Your task to perform on an android device: open app "Venmo" (install if not already installed) and go to login screen Image 0: 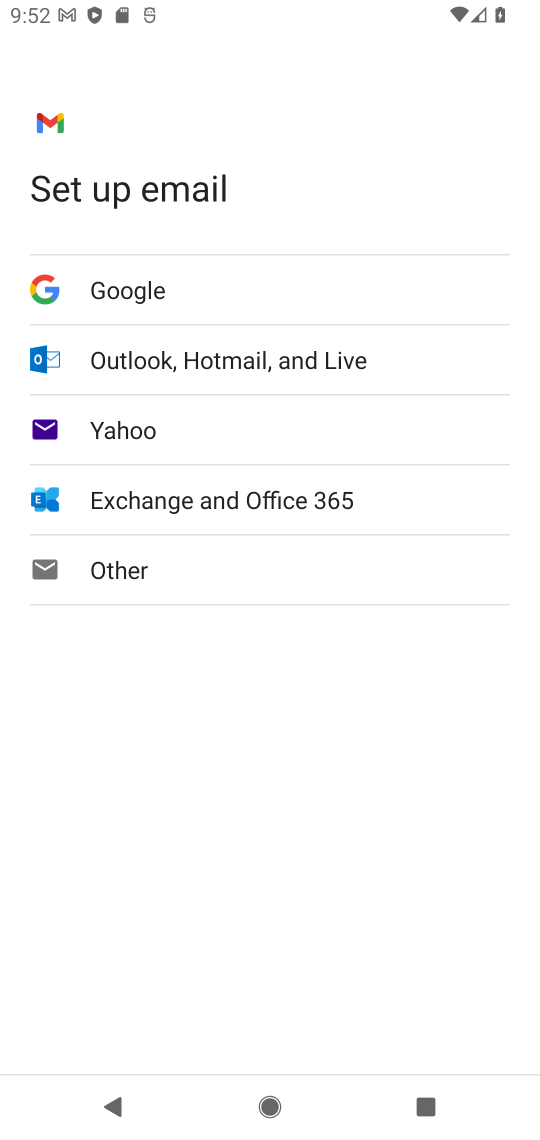
Step 0: press home button
Your task to perform on an android device: open app "Venmo" (install if not already installed) and go to login screen Image 1: 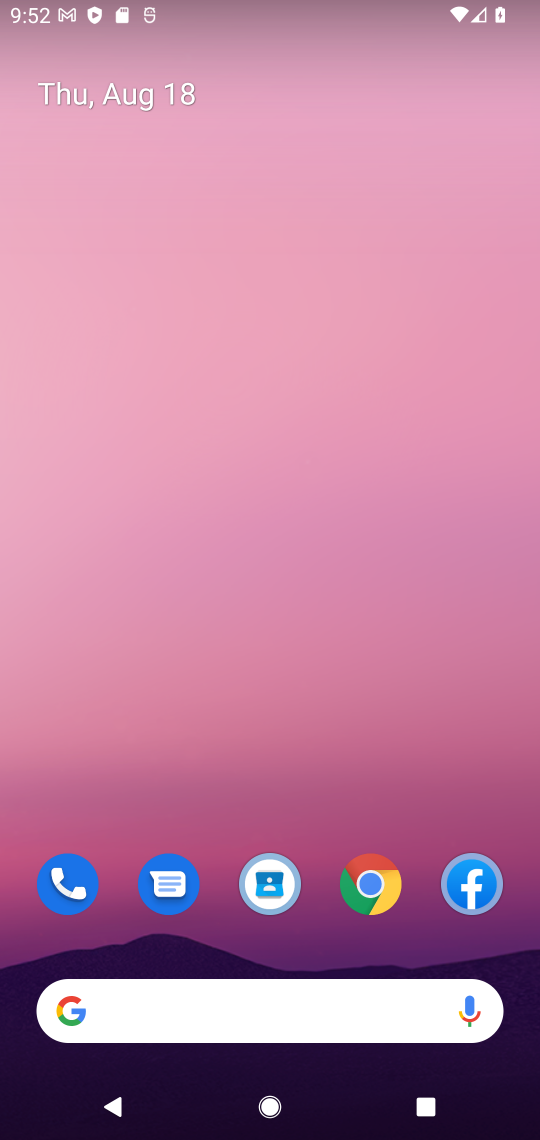
Step 1: drag from (324, 965) to (242, 270)
Your task to perform on an android device: open app "Venmo" (install if not already installed) and go to login screen Image 2: 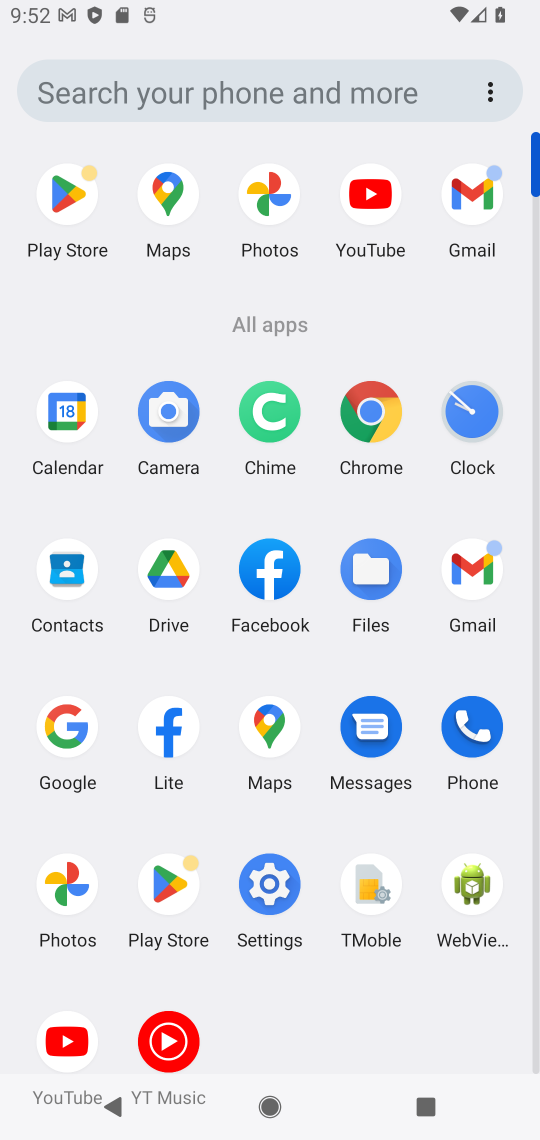
Step 2: click (198, 882)
Your task to perform on an android device: open app "Venmo" (install if not already installed) and go to login screen Image 3: 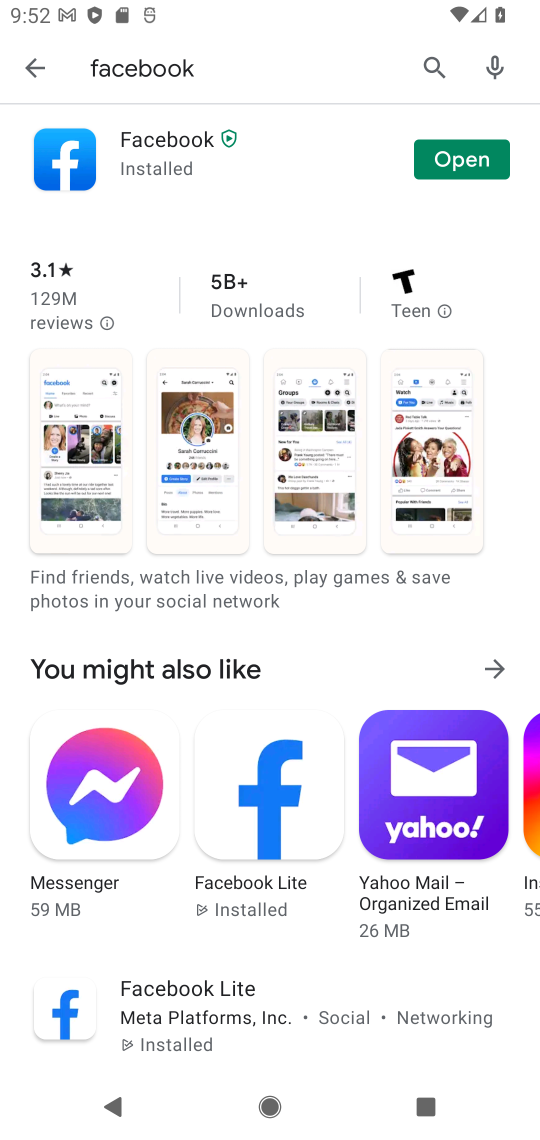
Step 3: click (415, 87)
Your task to perform on an android device: open app "Venmo" (install if not already installed) and go to login screen Image 4: 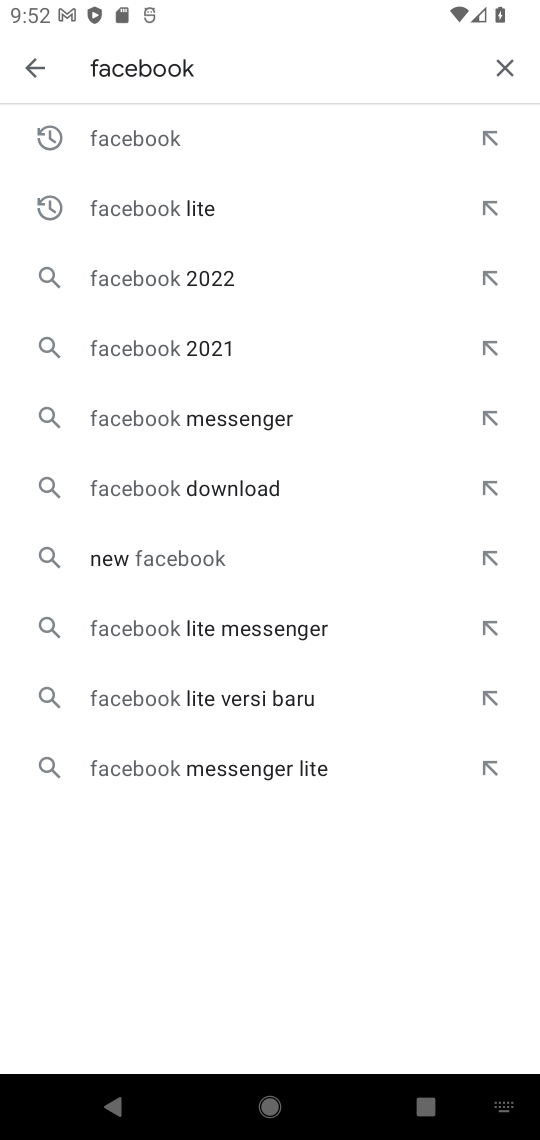
Step 4: click (488, 78)
Your task to perform on an android device: open app "Venmo" (install if not already installed) and go to login screen Image 5: 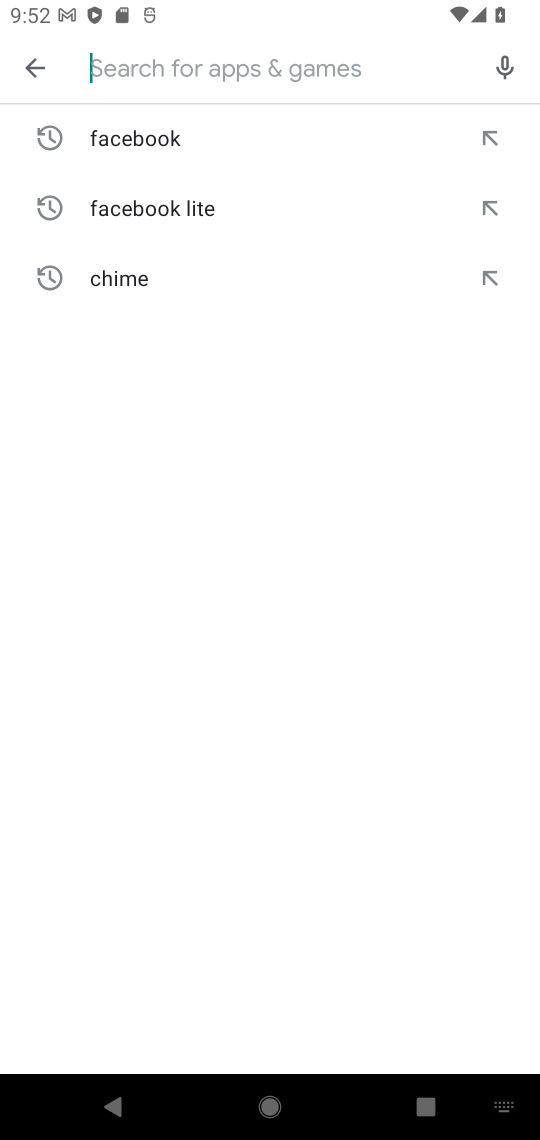
Step 5: type "venmo"
Your task to perform on an android device: open app "Venmo" (install if not already installed) and go to login screen Image 6: 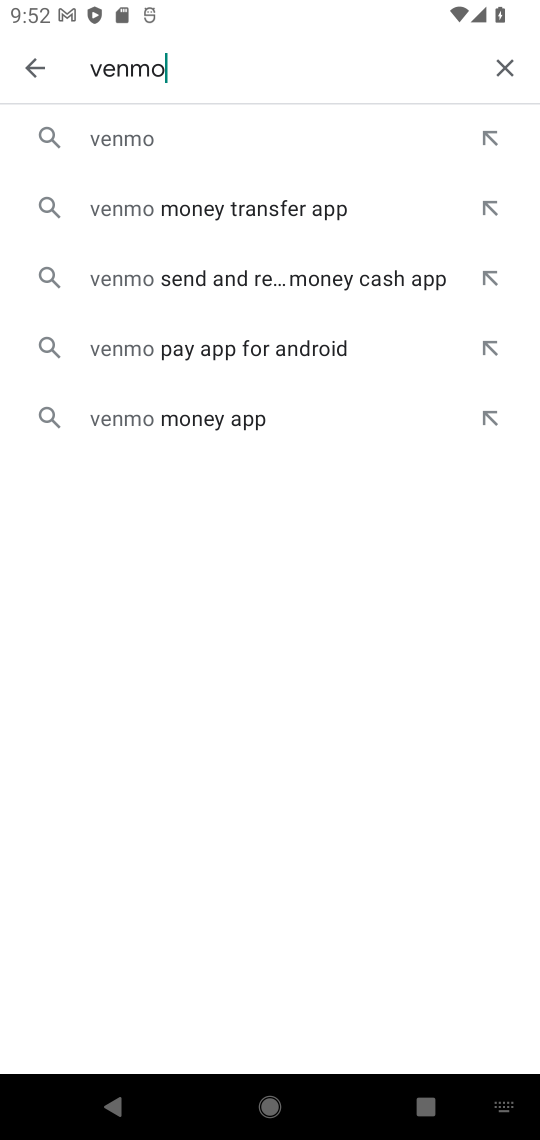
Step 6: click (167, 153)
Your task to perform on an android device: open app "Venmo" (install if not already installed) and go to login screen Image 7: 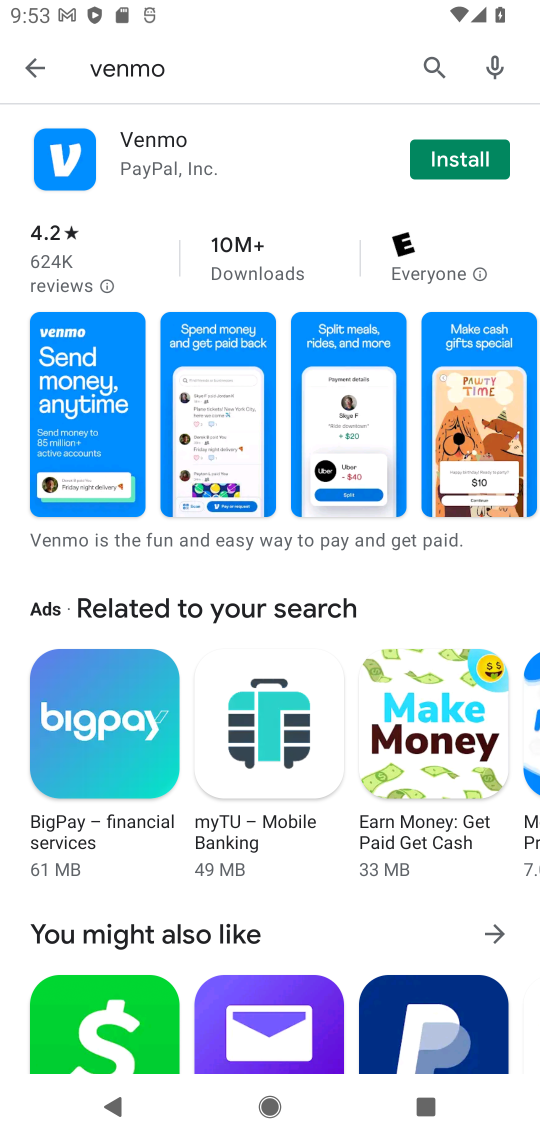
Step 7: click (477, 175)
Your task to perform on an android device: open app "Venmo" (install if not already installed) and go to login screen Image 8: 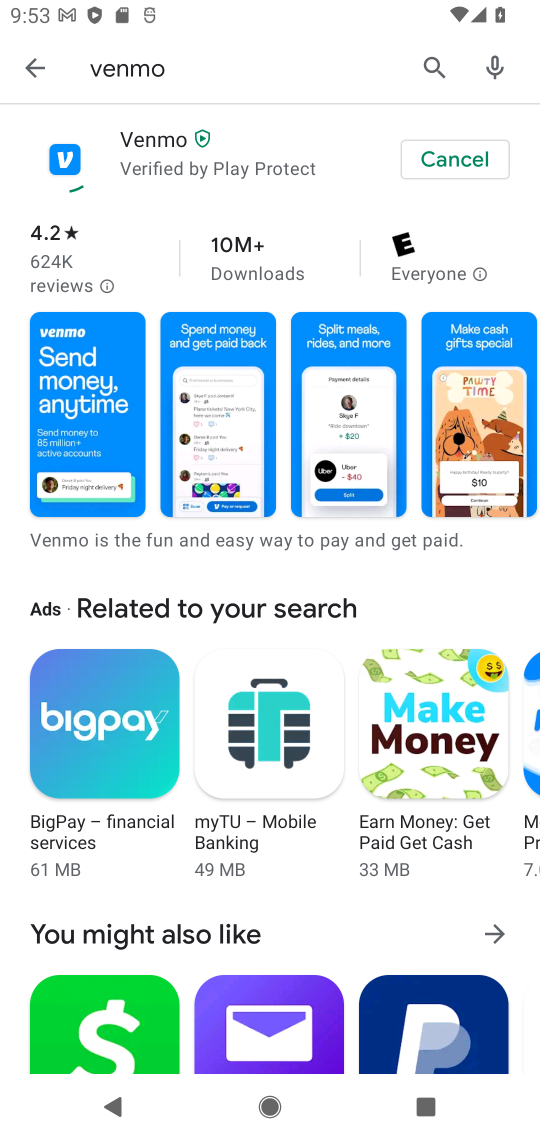
Step 8: task complete